Your task to perform on an android device: Go to battery settings Image 0: 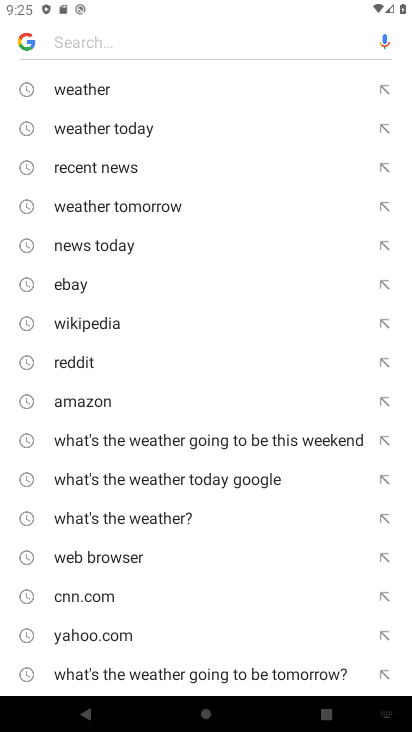
Step 0: press back button
Your task to perform on an android device: Go to battery settings Image 1: 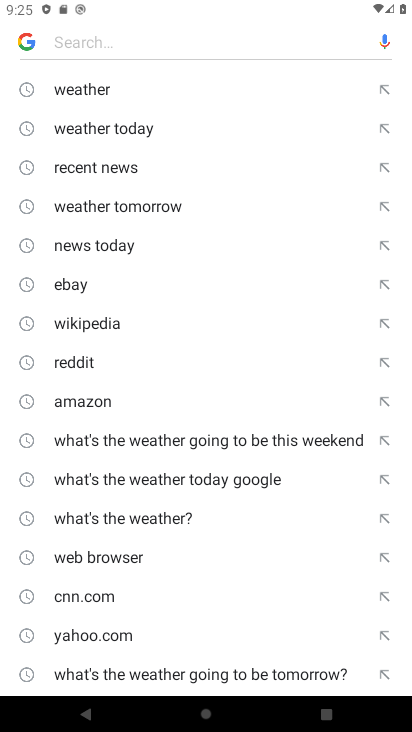
Step 1: press back button
Your task to perform on an android device: Go to battery settings Image 2: 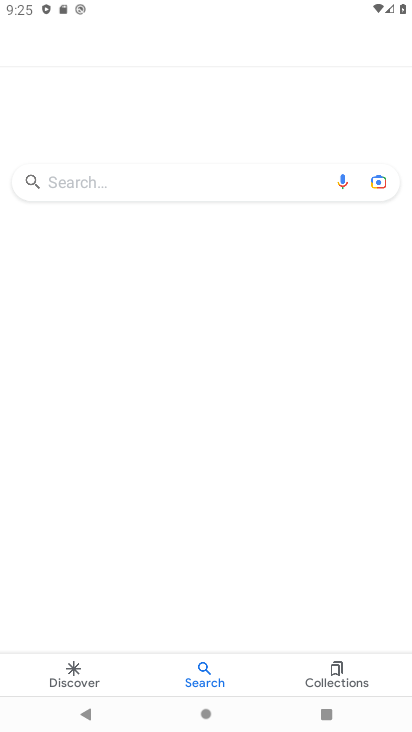
Step 2: press back button
Your task to perform on an android device: Go to battery settings Image 3: 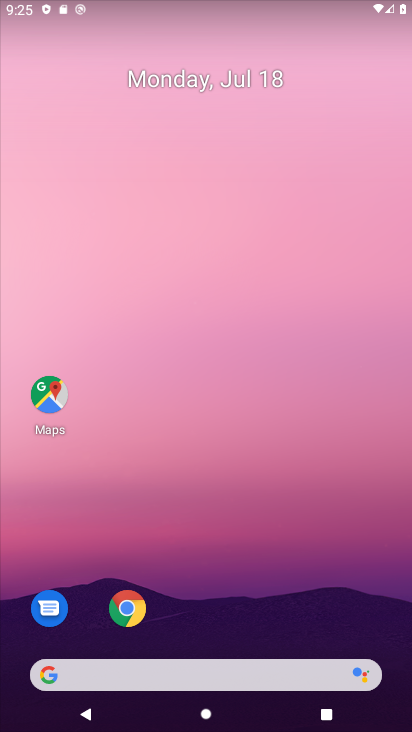
Step 3: drag from (244, 657) to (126, 126)
Your task to perform on an android device: Go to battery settings Image 4: 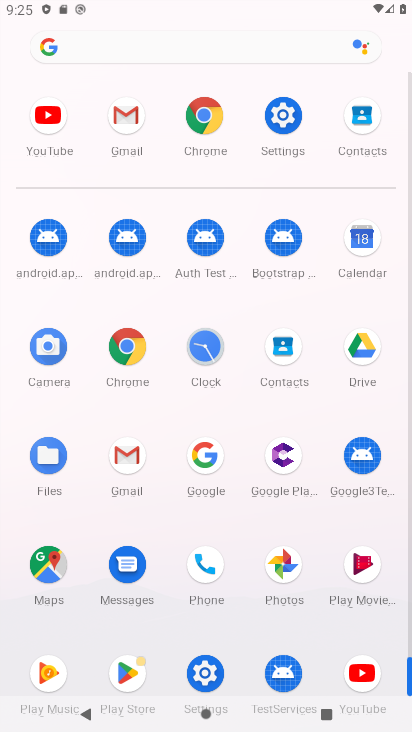
Step 4: click (273, 117)
Your task to perform on an android device: Go to battery settings Image 5: 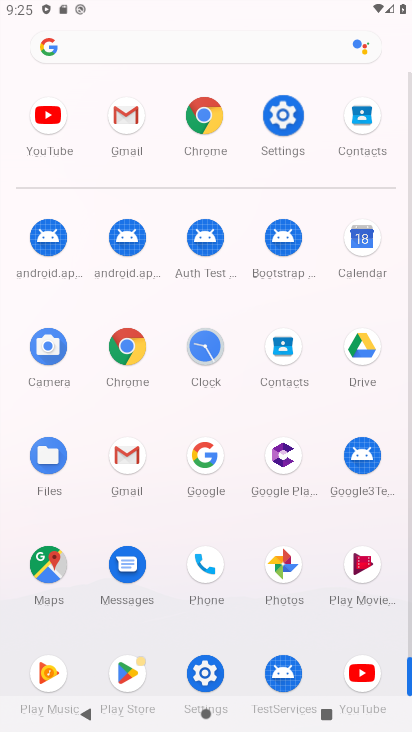
Step 5: click (273, 117)
Your task to perform on an android device: Go to battery settings Image 6: 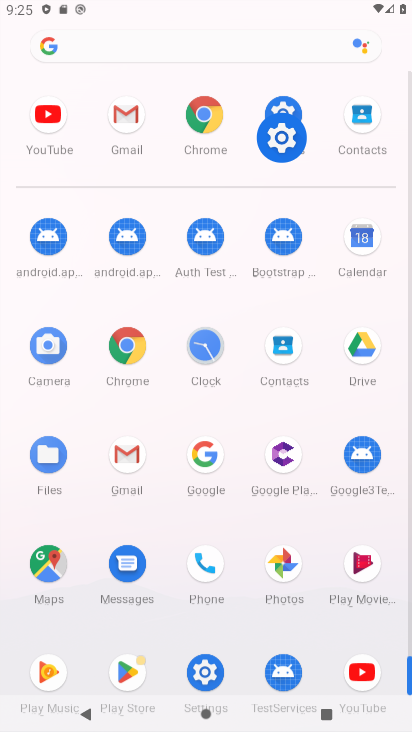
Step 6: click (273, 117)
Your task to perform on an android device: Go to battery settings Image 7: 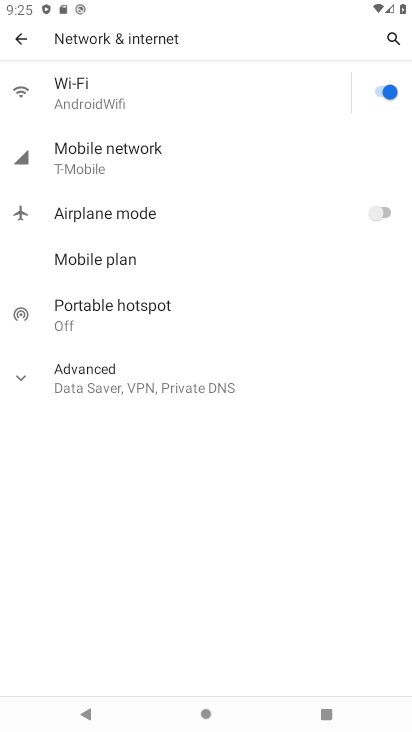
Step 7: click (24, 42)
Your task to perform on an android device: Go to battery settings Image 8: 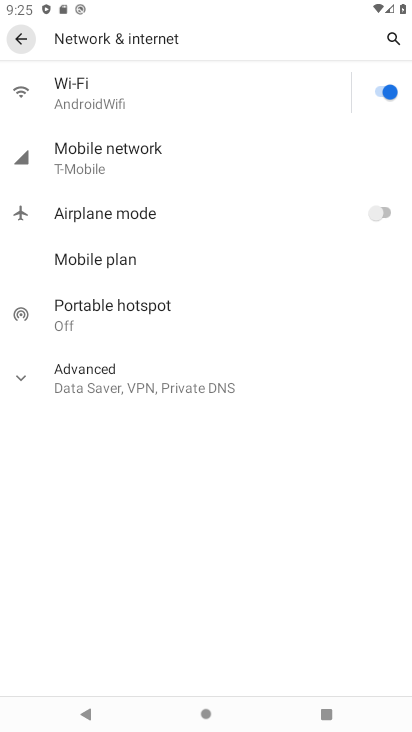
Step 8: click (24, 41)
Your task to perform on an android device: Go to battery settings Image 9: 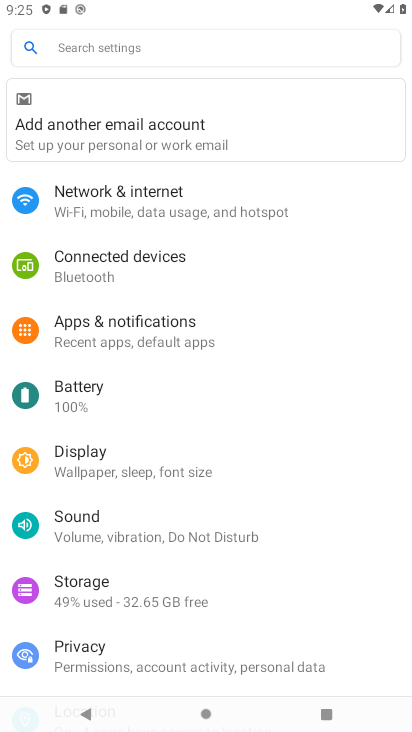
Step 9: drag from (123, 592) to (76, 56)
Your task to perform on an android device: Go to battery settings Image 10: 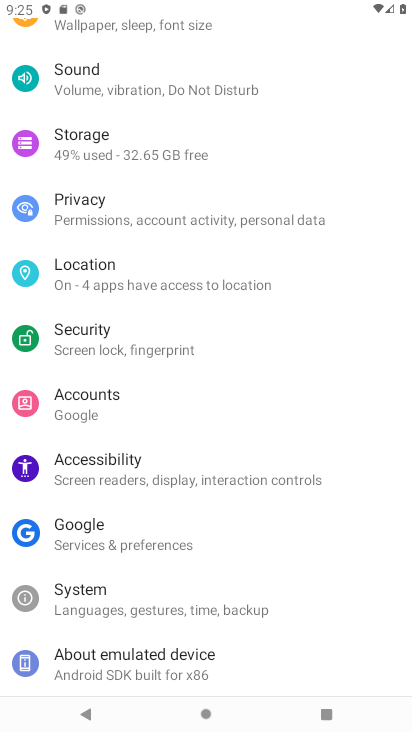
Step 10: drag from (167, 453) to (105, 227)
Your task to perform on an android device: Go to battery settings Image 11: 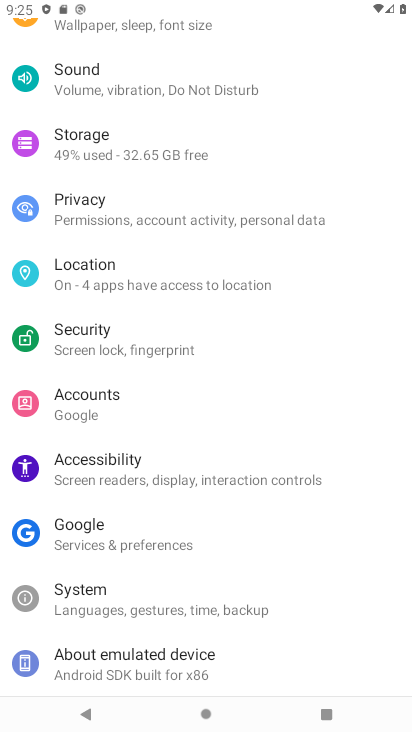
Step 11: drag from (108, 184) to (121, 496)
Your task to perform on an android device: Go to battery settings Image 12: 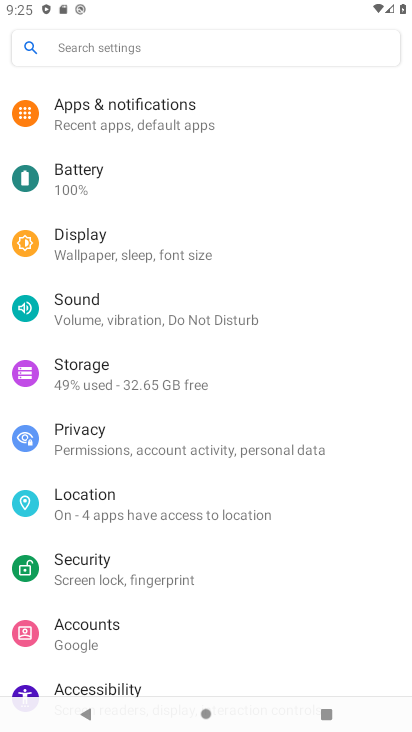
Step 12: drag from (41, 162) to (153, 462)
Your task to perform on an android device: Go to battery settings Image 13: 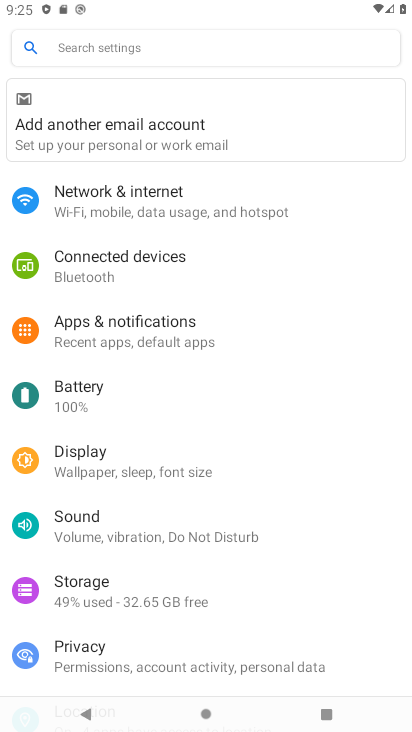
Step 13: click (85, 387)
Your task to perform on an android device: Go to battery settings Image 14: 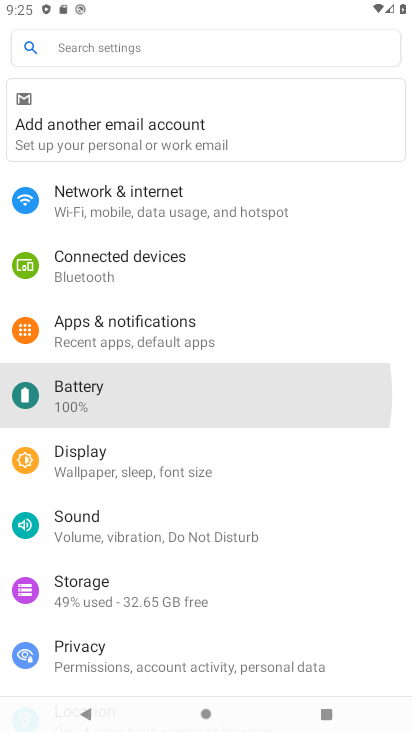
Step 14: click (85, 390)
Your task to perform on an android device: Go to battery settings Image 15: 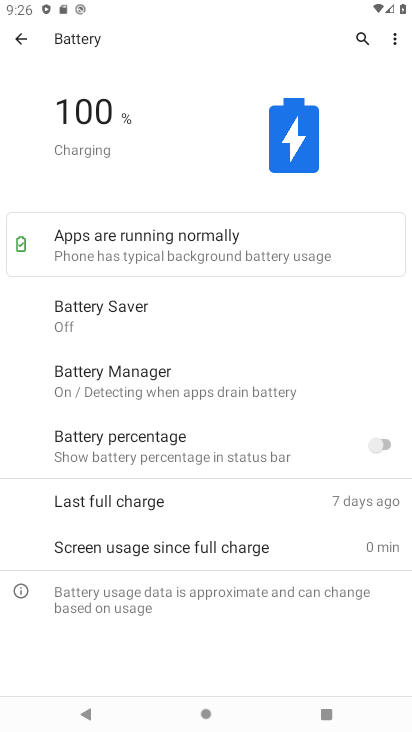
Step 15: task complete